Your task to perform on an android device: delete the emails in spam in the gmail app Image 0: 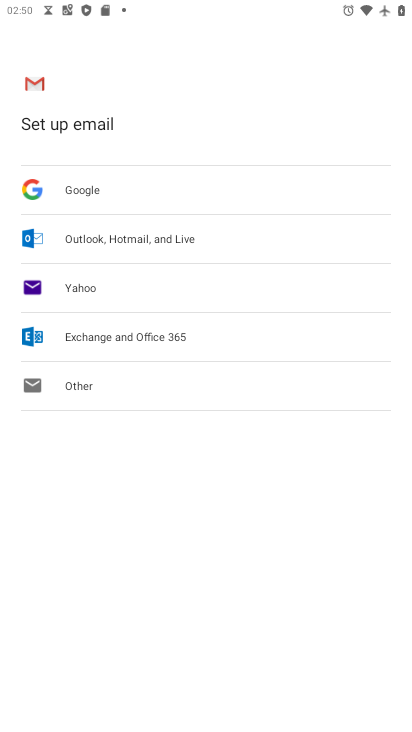
Step 0: press home button
Your task to perform on an android device: delete the emails in spam in the gmail app Image 1: 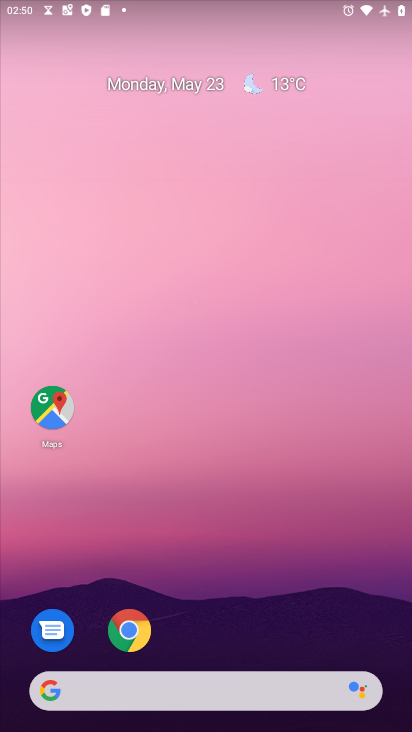
Step 1: drag from (262, 524) to (190, 36)
Your task to perform on an android device: delete the emails in spam in the gmail app Image 2: 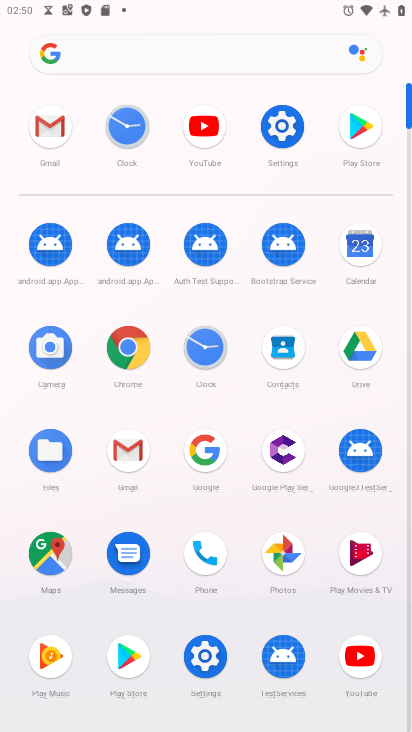
Step 2: click (133, 462)
Your task to perform on an android device: delete the emails in spam in the gmail app Image 3: 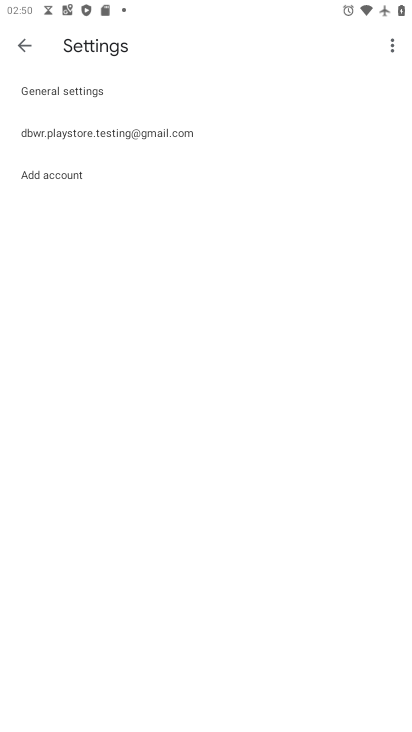
Step 3: click (21, 56)
Your task to perform on an android device: delete the emails in spam in the gmail app Image 4: 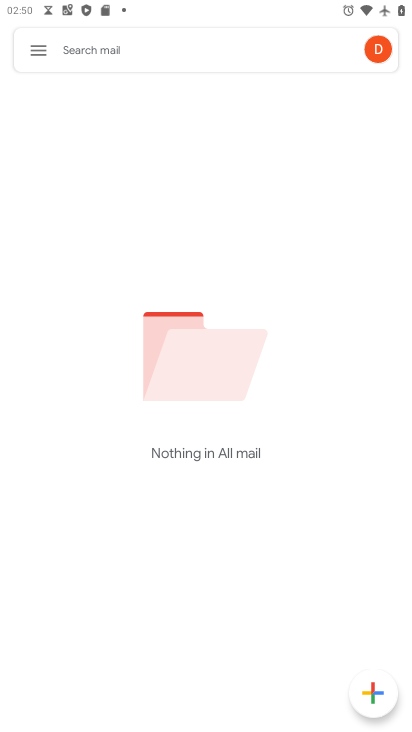
Step 4: click (41, 49)
Your task to perform on an android device: delete the emails in spam in the gmail app Image 5: 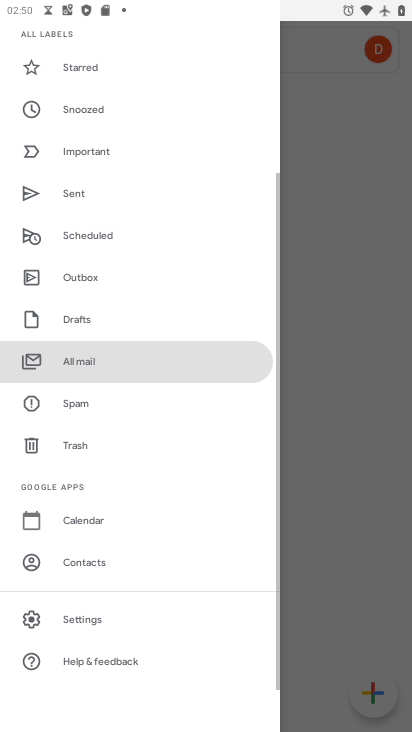
Step 5: click (106, 404)
Your task to perform on an android device: delete the emails in spam in the gmail app Image 6: 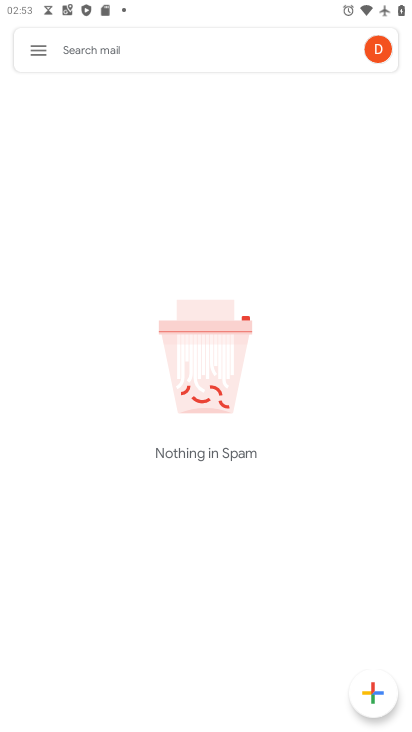
Step 6: task complete